Your task to perform on an android device: Open network settings Image 0: 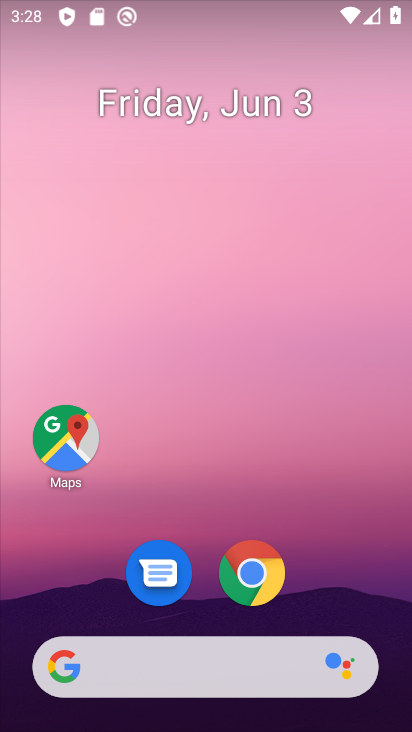
Step 0: drag from (399, 708) to (375, 173)
Your task to perform on an android device: Open network settings Image 1: 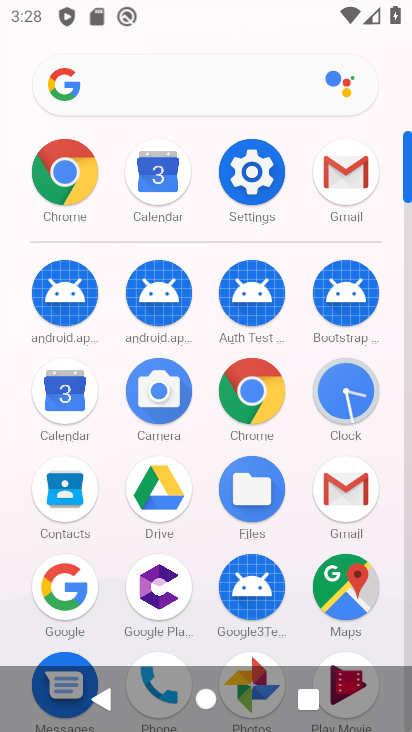
Step 1: click (263, 181)
Your task to perform on an android device: Open network settings Image 2: 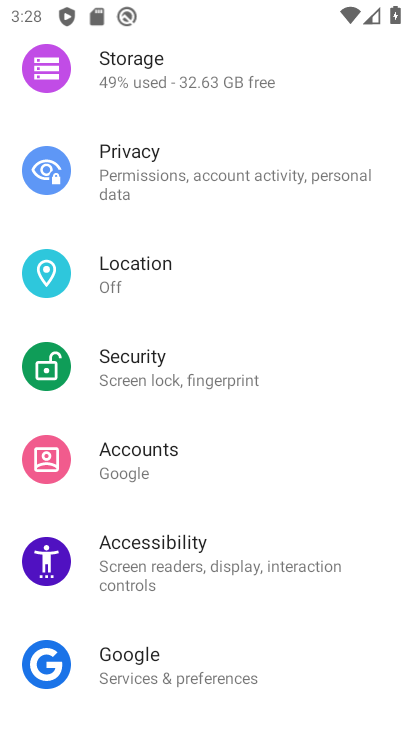
Step 2: drag from (291, 122) to (293, 442)
Your task to perform on an android device: Open network settings Image 3: 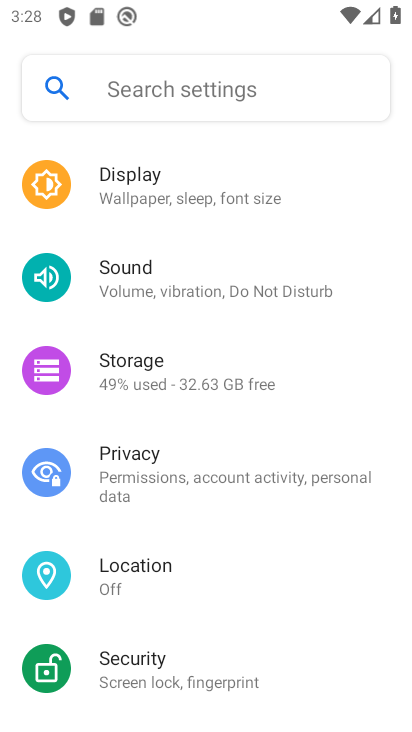
Step 3: drag from (314, 303) to (340, 653)
Your task to perform on an android device: Open network settings Image 4: 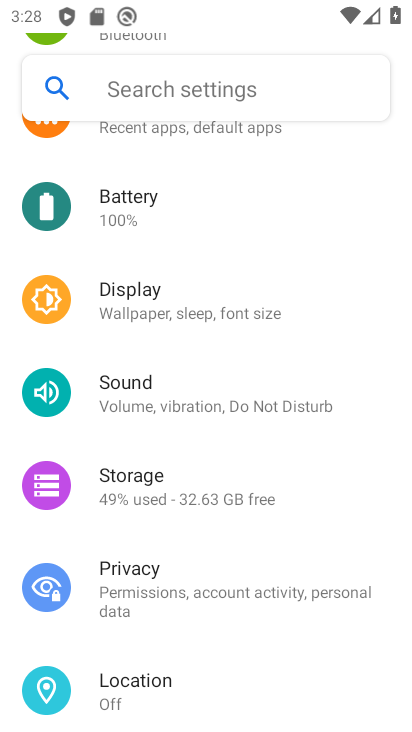
Step 4: drag from (330, 185) to (348, 583)
Your task to perform on an android device: Open network settings Image 5: 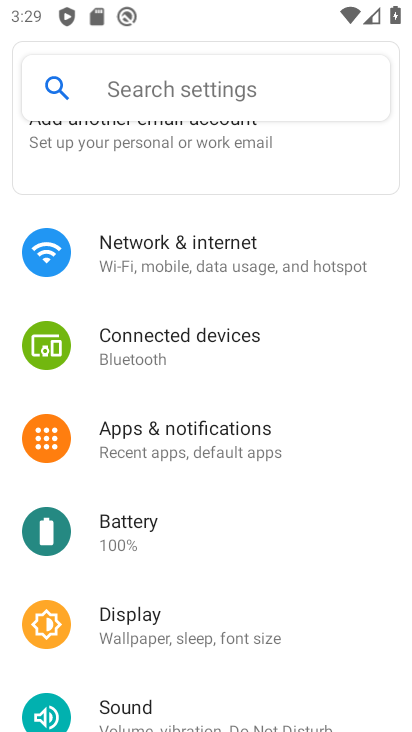
Step 5: click (132, 252)
Your task to perform on an android device: Open network settings Image 6: 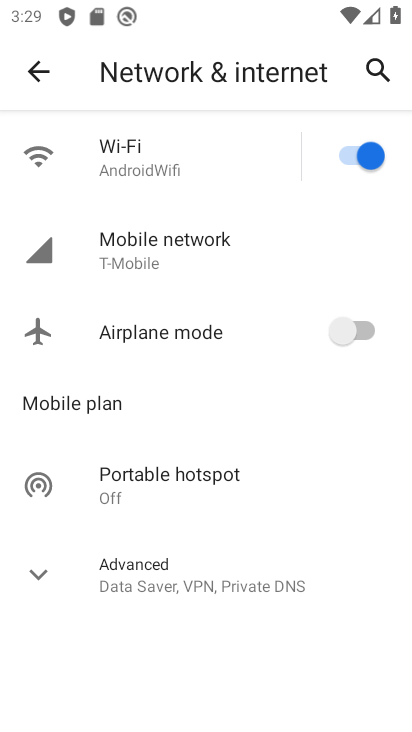
Step 6: click (170, 247)
Your task to perform on an android device: Open network settings Image 7: 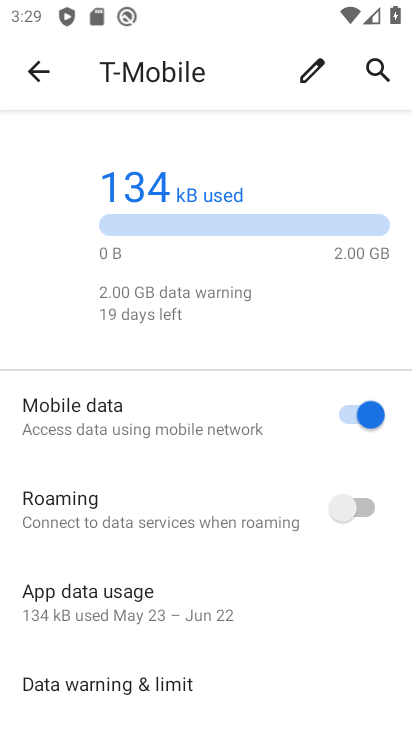
Step 7: drag from (206, 649) to (187, 305)
Your task to perform on an android device: Open network settings Image 8: 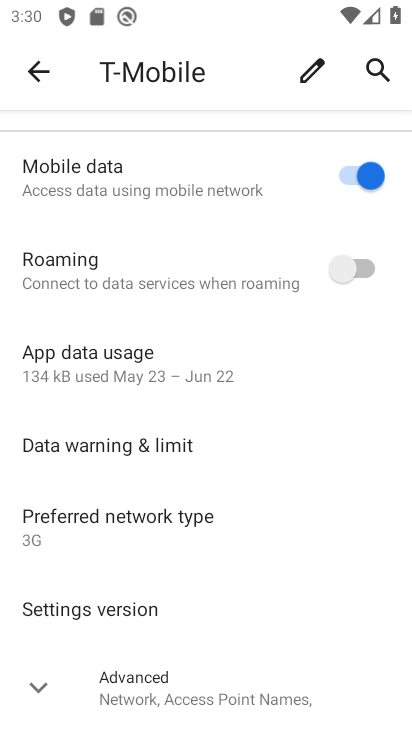
Step 8: click (39, 687)
Your task to perform on an android device: Open network settings Image 9: 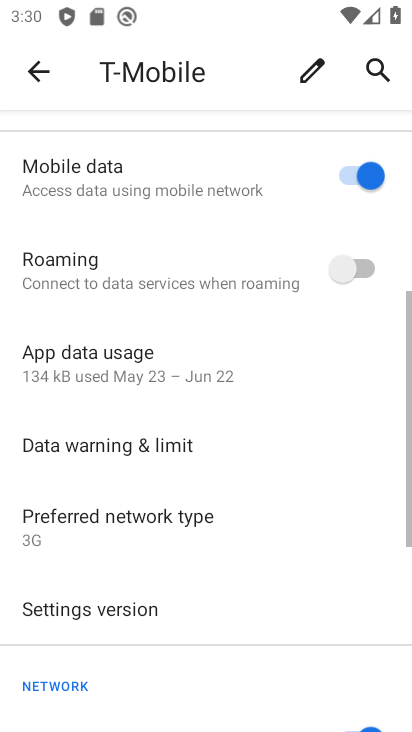
Step 9: task complete